Your task to perform on an android device: Search for razer nari on target.com, select the first entry, add it to the cart, then select checkout. Image 0: 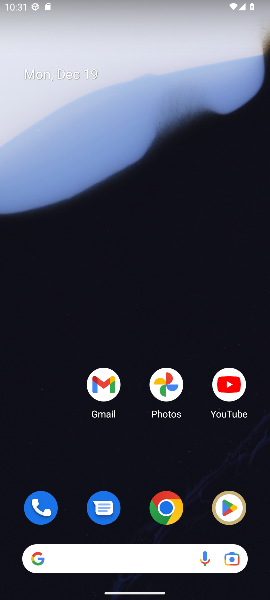
Step 0: click (164, 507)
Your task to perform on an android device: Search for razer nari on target.com, select the first entry, add it to the cart, then select checkout. Image 1: 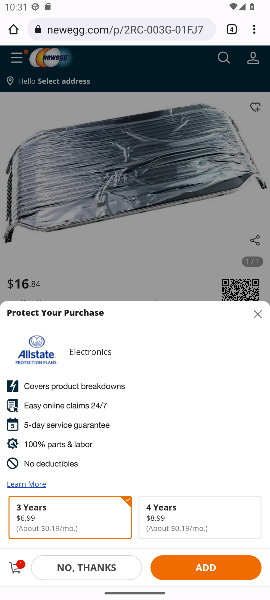
Step 1: click (232, 27)
Your task to perform on an android device: Search for razer nari on target.com, select the first entry, add it to the cart, then select checkout. Image 2: 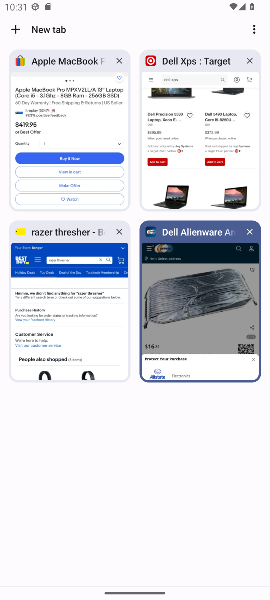
Step 2: click (180, 118)
Your task to perform on an android device: Search for razer nari on target.com, select the first entry, add it to the cart, then select checkout. Image 3: 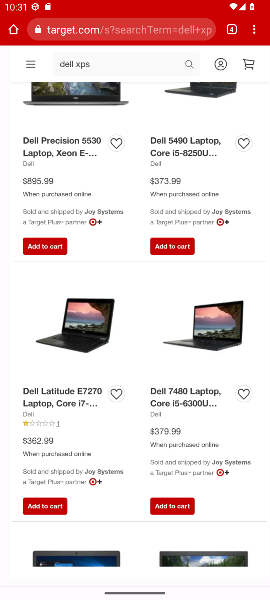
Step 3: click (112, 67)
Your task to perform on an android device: Search for razer nari on target.com, select the first entry, add it to the cart, then select checkout. Image 4: 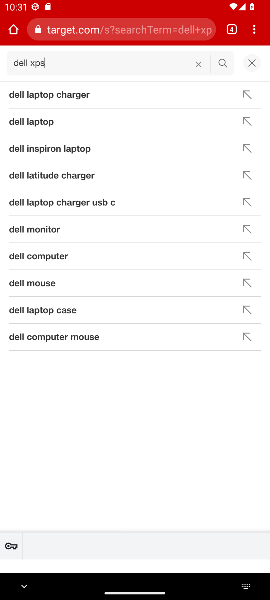
Step 4: click (198, 63)
Your task to perform on an android device: Search for razer nari on target.com, select the first entry, add it to the cart, then select checkout. Image 5: 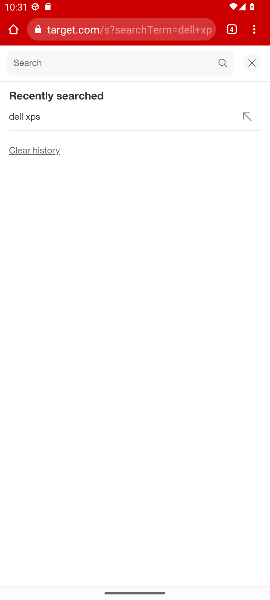
Step 5: type "razer nari "
Your task to perform on an android device: Search for razer nari on target.com, select the first entry, add it to the cart, then select checkout. Image 6: 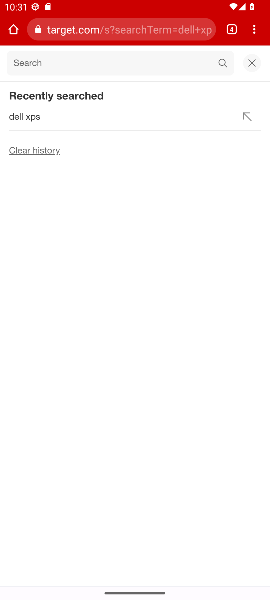
Step 6: click (179, 67)
Your task to perform on an android device: Search for razer nari on target.com, select the first entry, add it to the cart, then select checkout. Image 7: 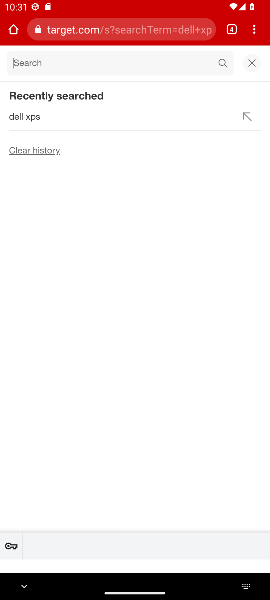
Step 7: type "razer nari "
Your task to perform on an android device: Search for razer nari on target.com, select the first entry, add it to the cart, then select checkout. Image 8: 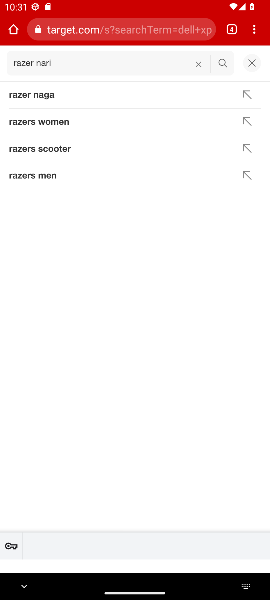
Step 8: click (220, 63)
Your task to perform on an android device: Search for razer nari on target.com, select the first entry, add it to the cart, then select checkout. Image 9: 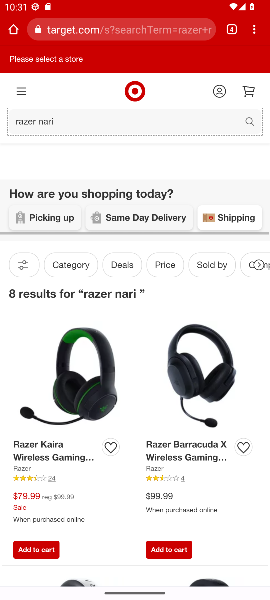
Step 9: task complete